Your task to perform on an android device: Open Chrome and go to settings Image 0: 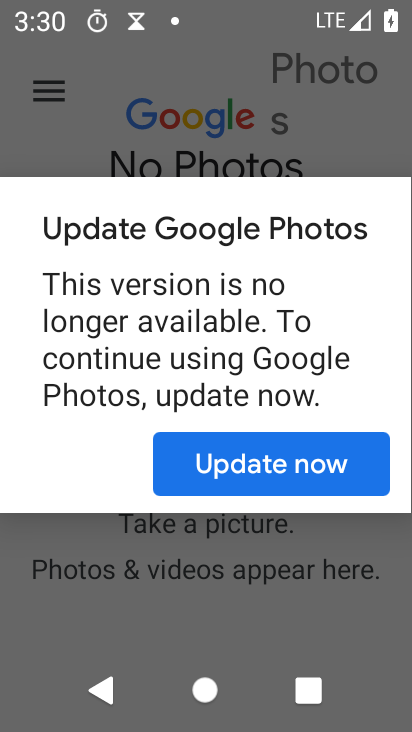
Step 0: press home button
Your task to perform on an android device: Open Chrome and go to settings Image 1: 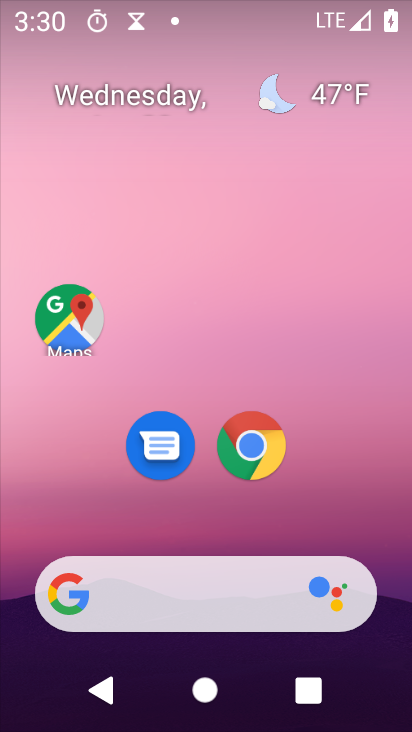
Step 1: click (255, 441)
Your task to perform on an android device: Open Chrome and go to settings Image 2: 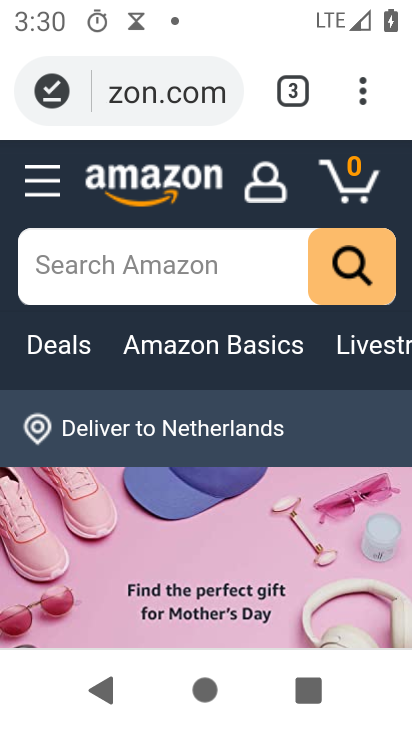
Step 2: click (362, 92)
Your task to perform on an android device: Open Chrome and go to settings Image 3: 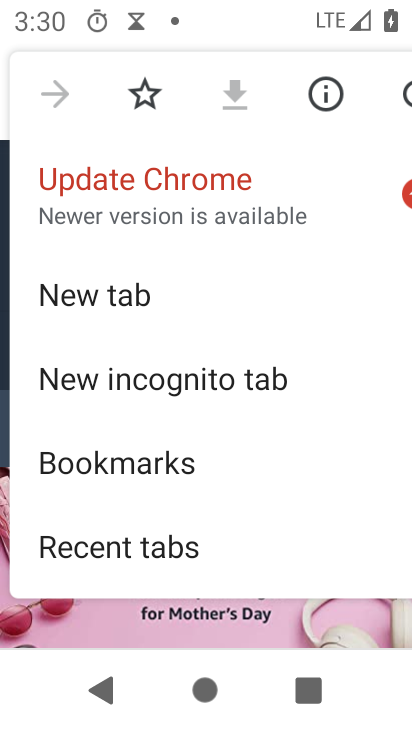
Step 3: drag from (210, 457) to (221, 155)
Your task to perform on an android device: Open Chrome and go to settings Image 4: 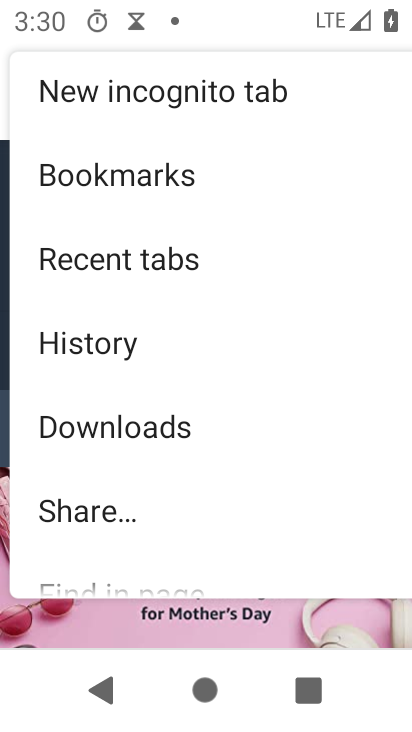
Step 4: drag from (193, 449) to (189, 158)
Your task to perform on an android device: Open Chrome and go to settings Image 5: 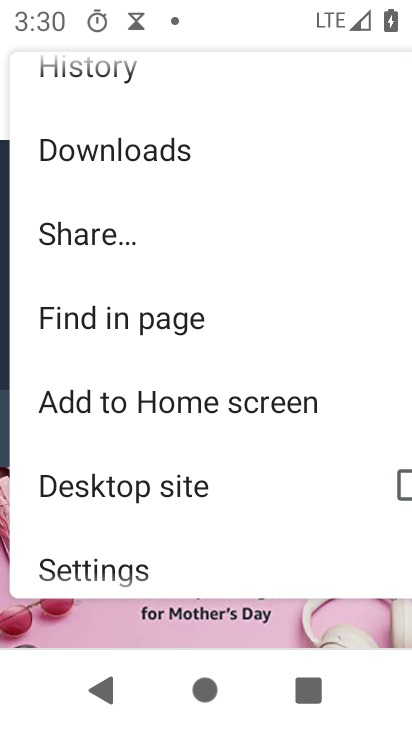
Step 5: drag from (203, 513) to (206, 304)
Your task to perform on an android device: Open Chrome and go to settings Image 6: 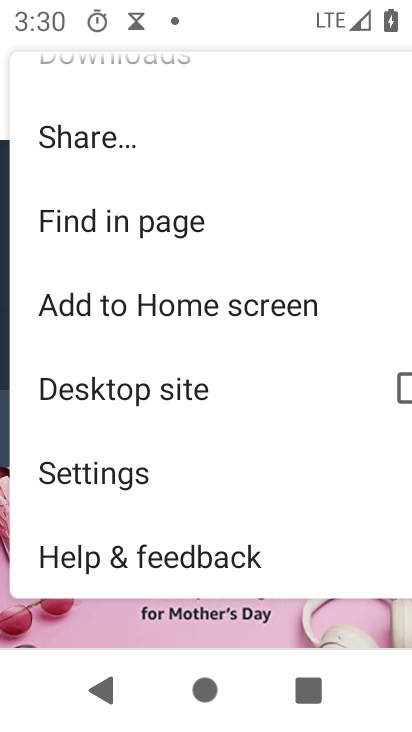
Step 6: click (94, 480)
Your task to perform on an android device: Open Chrome and go to settings Image 7: 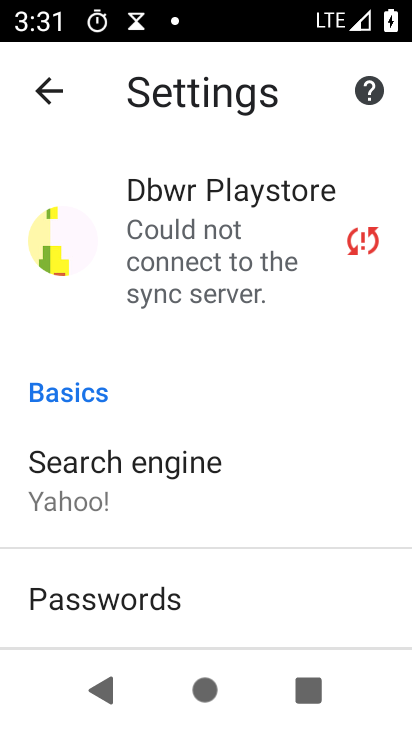
Step 7: task complete